Your task to perform on an android device: change the clock style Image 0: 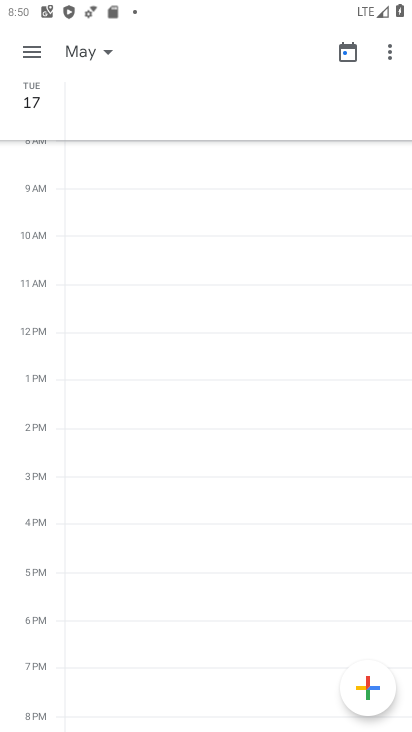
Step 0: press home button
Your task to perform on an android device: change the clock style Image 1: 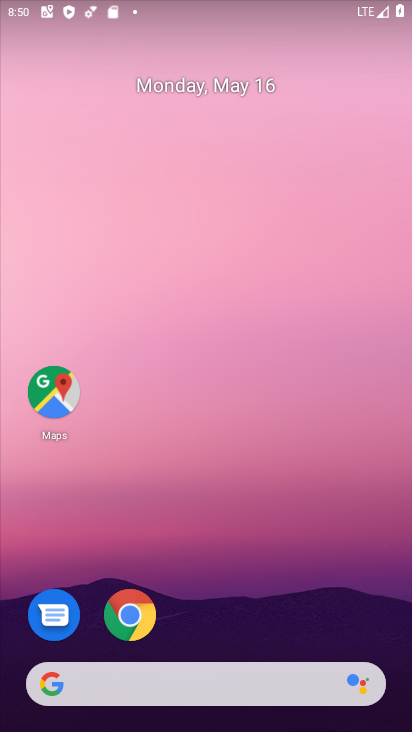
Step 1: drag from (258, 700) to (215, 210)
Your task to perform on an android device: change the clock style Image 2: 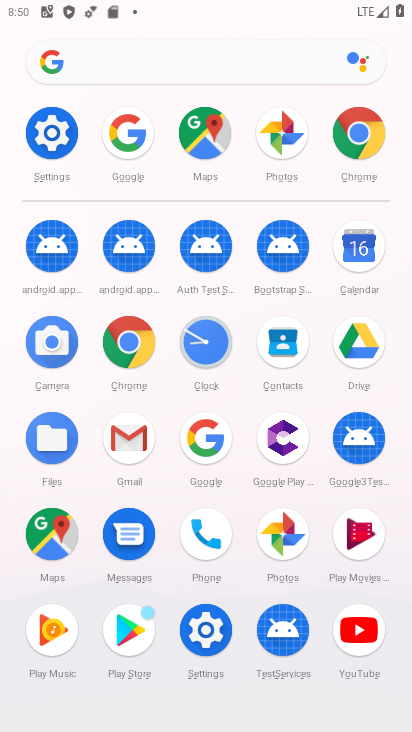
Step 2: click (208, 362)
Your task to perform on an android device: change the clock style Image 3: 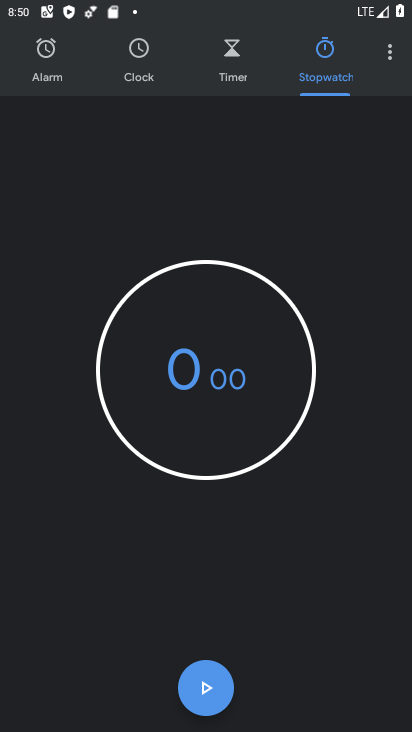
Step 3: click (389, 59)
Your task to perform on an android device: change the clock style Image 4: 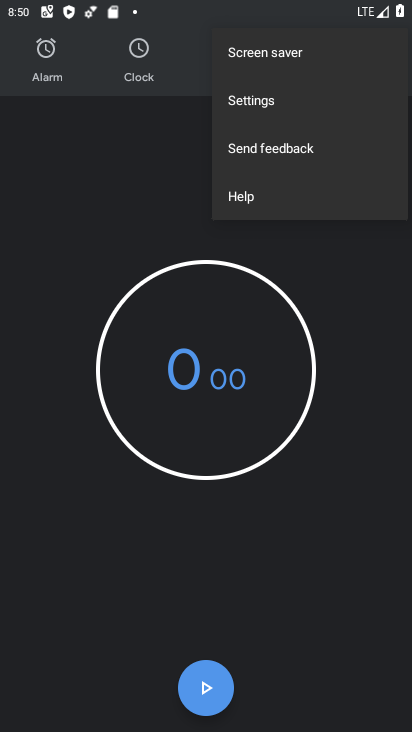
Step 4: click (282, 111)
Your task to perform on an android device: change the clock style Image 5: 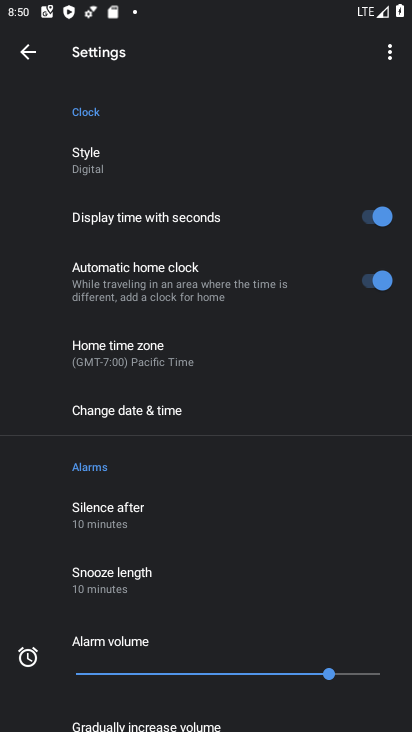
Step 5: click (137, 162)
Your task to perform on an android device: change the clock style Image 6: 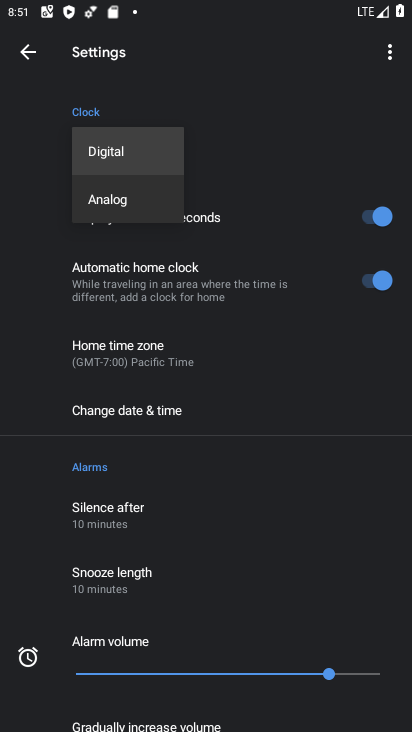
Step 6: click (142, 210)
Your task to perform on an android device: change the clock style Image 7: 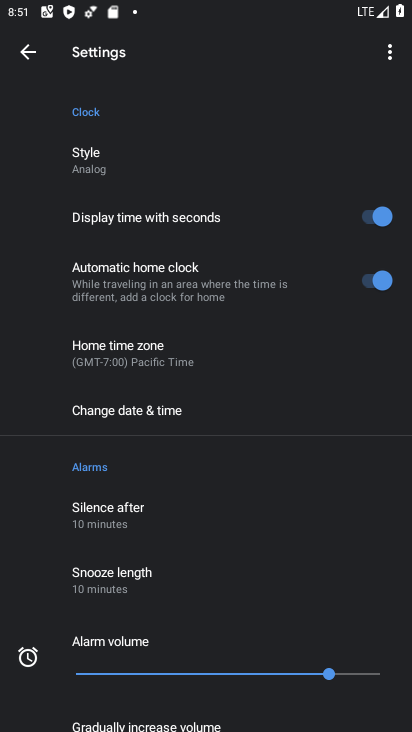
Step 7: task complete